Your task to perform on an android device: Go to network settings Image 0: 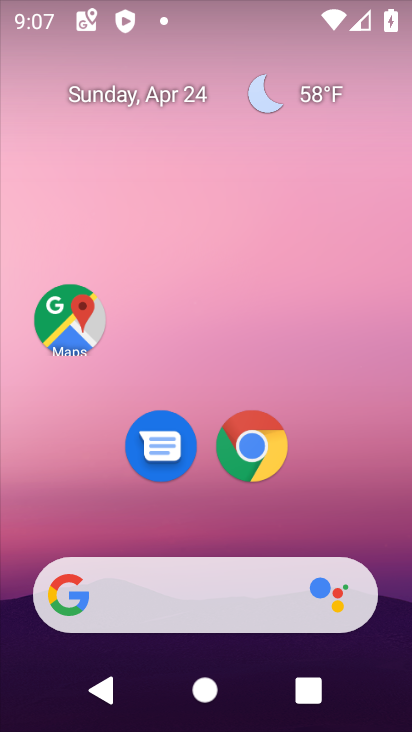
Step 0: press home button
Your task to perform on an android device: Go to network settings Image 1: 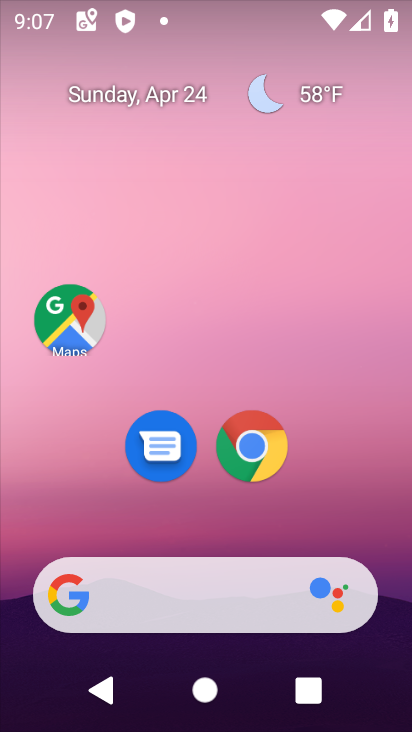
Step 1: drag from (190, 601) to (368, 63)
Your task to perform on an android device: Go to network settings Image 2: 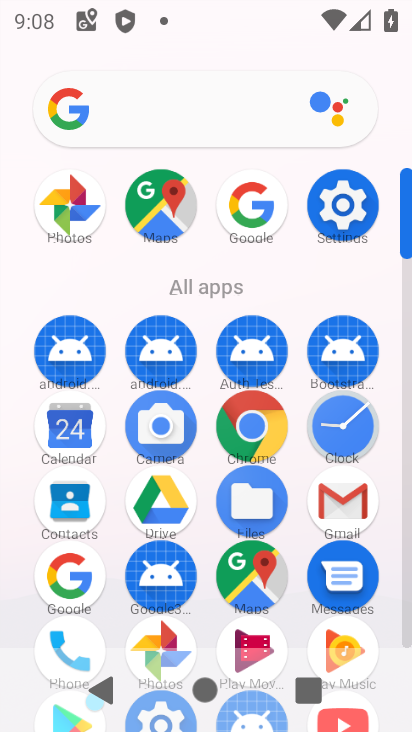
Step 2: click (334, 216)
Your task to perform on an android device: Go to network settings Image 3: 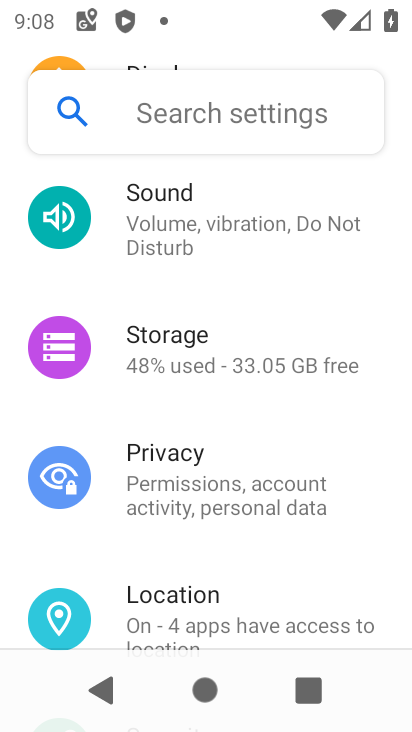
Step 3: drag from (302, 179) to (209, 559)
Your task to perform on an android device: Go to network settings Image 4: 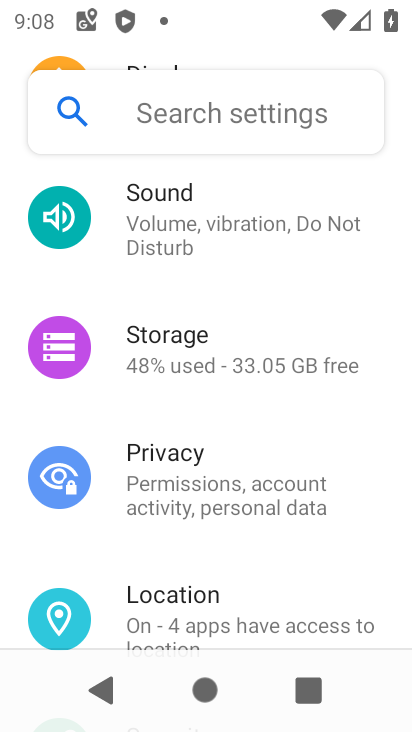
Step 4: drag from (213, 174) to (103, 568)
Your task to perform on an android device: Go to network settings Image 5: 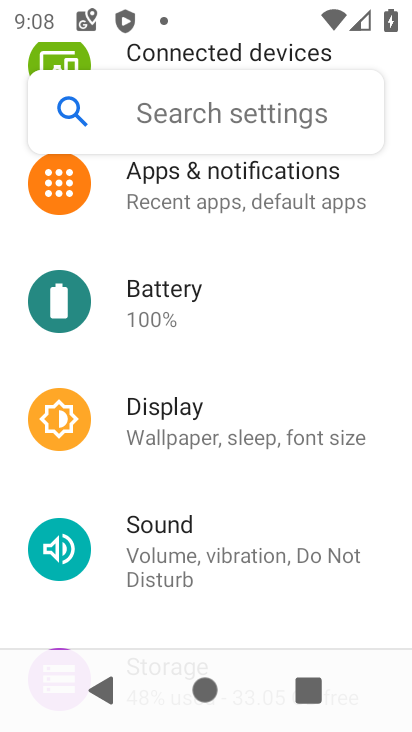
Step 5: drag from (240, 260) to (158, 589)
Your task to perform on an android device: Go to network settings Image 6: 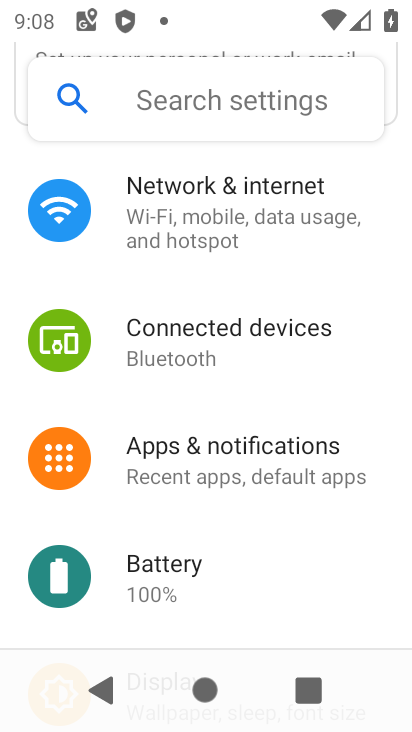
Step 6: click (245, 184)
Your task to perform on an android device: Go to network settings Image 7: 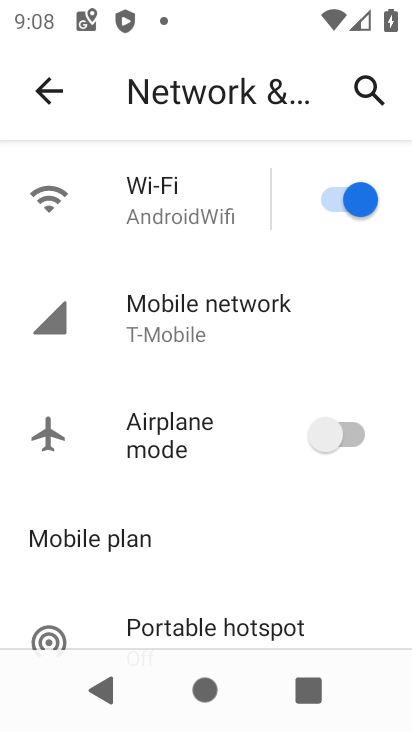
Step 7: click (198, 214)
Your task to perform on an android device: Go to network settings Image 8: 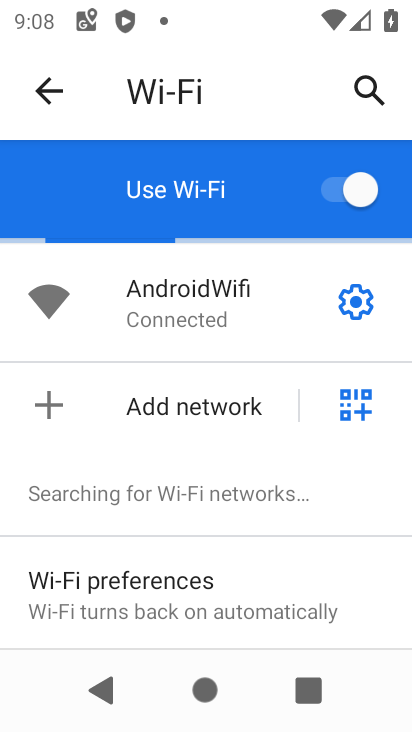
Step 8: task complete